Your task to perform on an android device: toggle notifications settings in the gmail app Image 0: 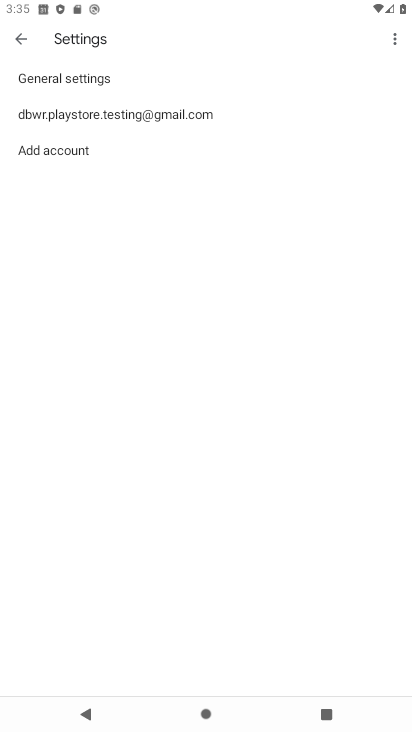
Step 0: press home button
Your task to perform on an android device: toggle notifications settings in the gmail app Image 1: 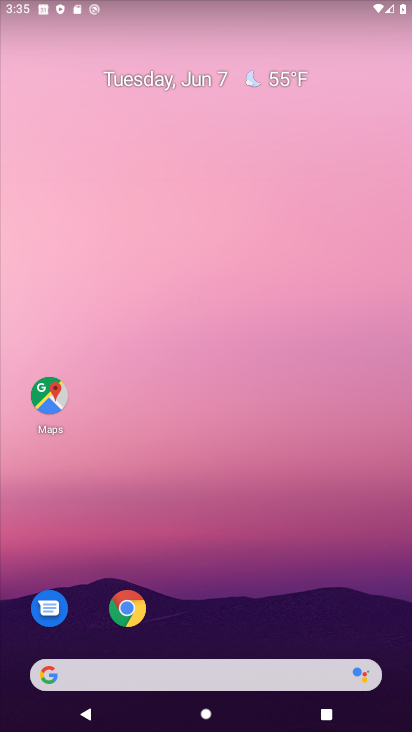
Step 1: drag from (221, 641) to (248, 23)
Your task to perform on an android device: toggle notifications settings in the gmail app Image 2: 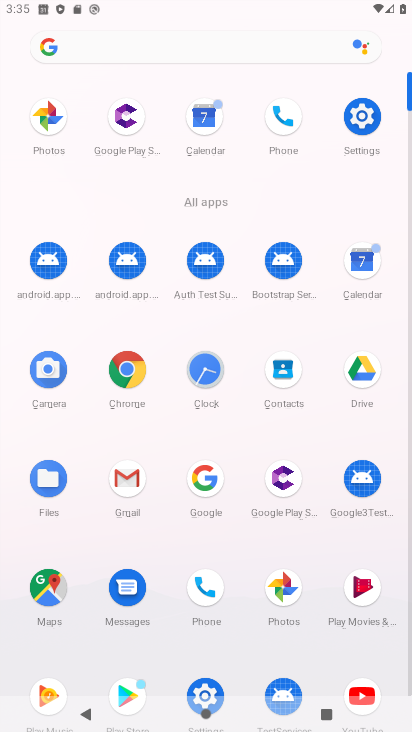
Step 2: click (351, 115)
Your task to perform on an android device: toggle notifications settings in the gmail app Image 3: 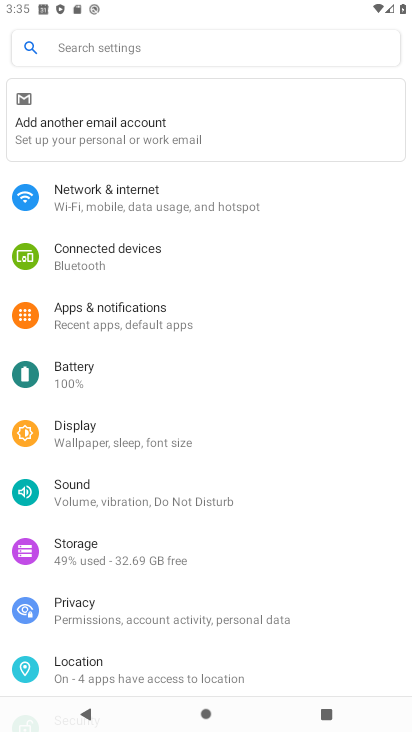
Step 3: click (160, 327)
Your task to perform on an android device: toggle notifications settings in the gmail app Image 4: 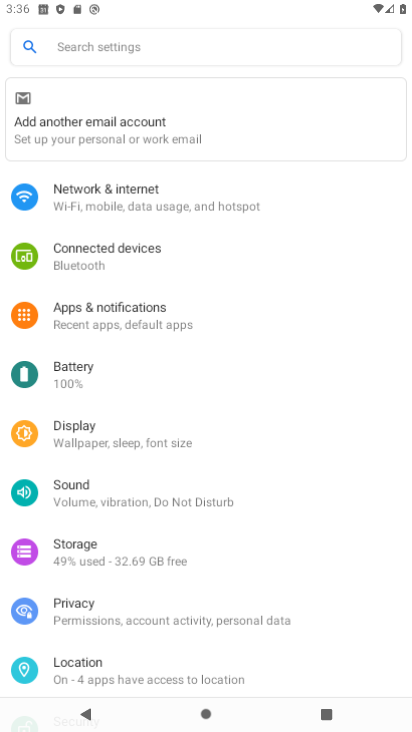
Step 4: task complete